Your task to perform on an android device: turn off javascript in the chrome app Image 0: 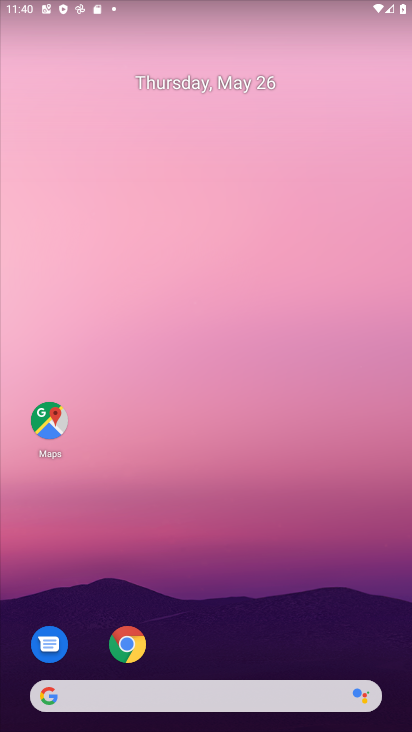
Step 0: drag from (332, 627) to (306, 54)
Your task to perform on an android device: turn off javascript in the chrome app Image 1: 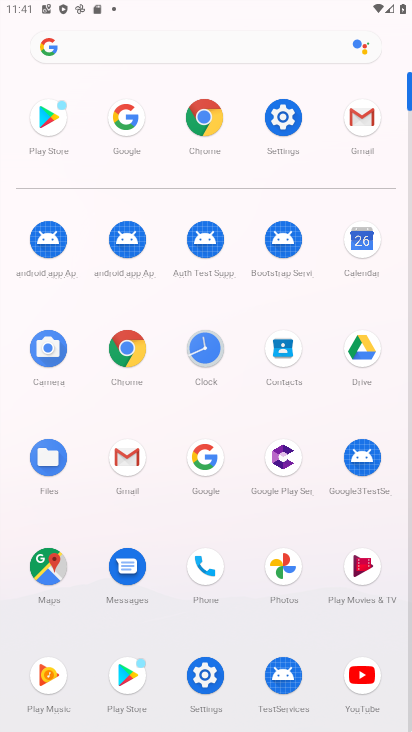
Step 1: click (141, 358)
Your task to perform on an android device: turn off javascript in the chrome app Image 2: 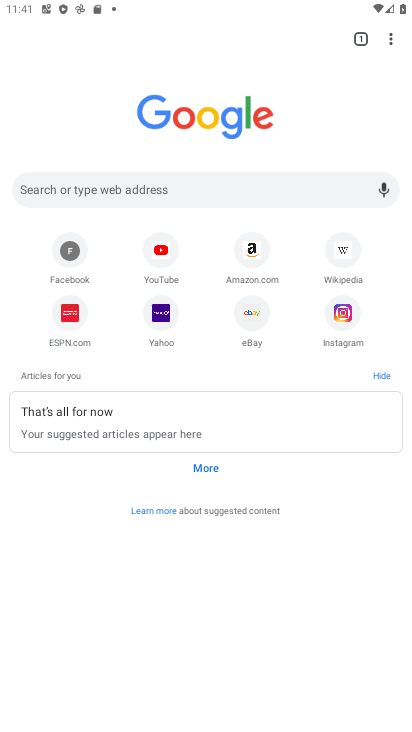
Step 2: click (391, 42)
Your task to perform on an android device: turn off javascript in the chrome app Image 3: 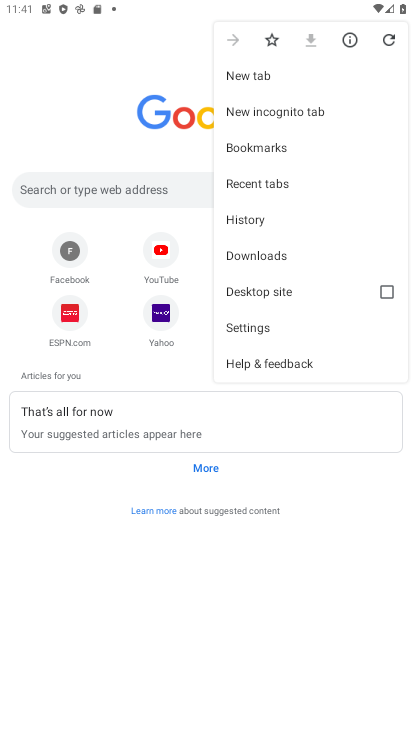
Step 3: click (256, 329)
Your task to perform on an android device: turn off javascript in the chrome app Image 4: 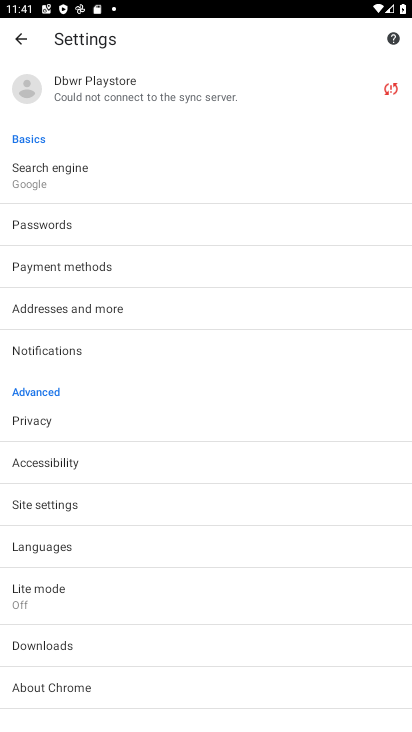
Step 4: click (68, 510)
Your task to perform on an android device: turn off javascript in the chrome app Image 5: 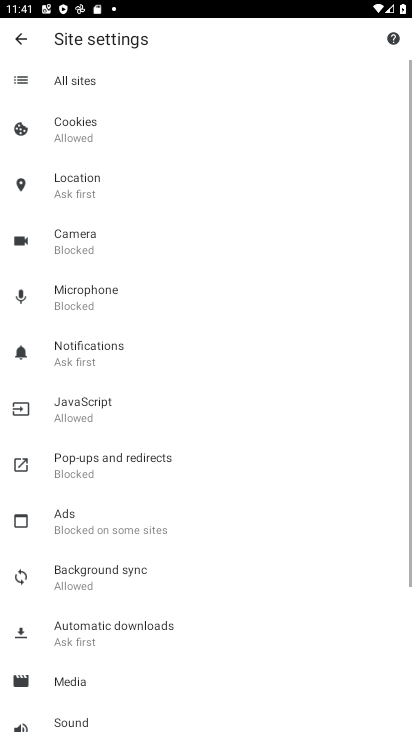
Step 5: click (162, 411)
Your task to perform on an android device: turn off javascript in the chrome app Image 6: 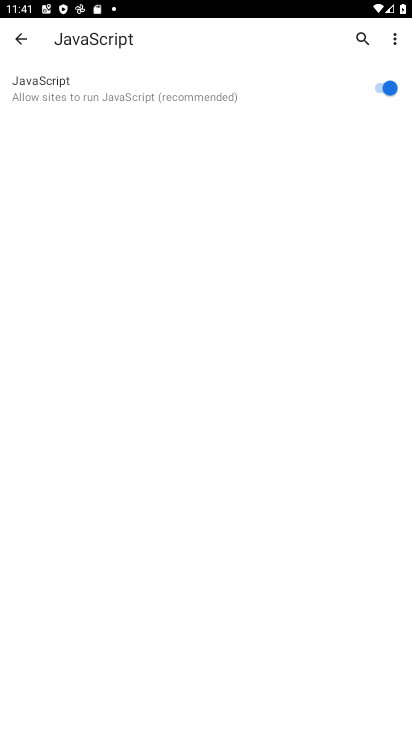
Step 6: click (380, 89)
Your task to perform on an android device: turn off javascript in the chrome app Image 7: 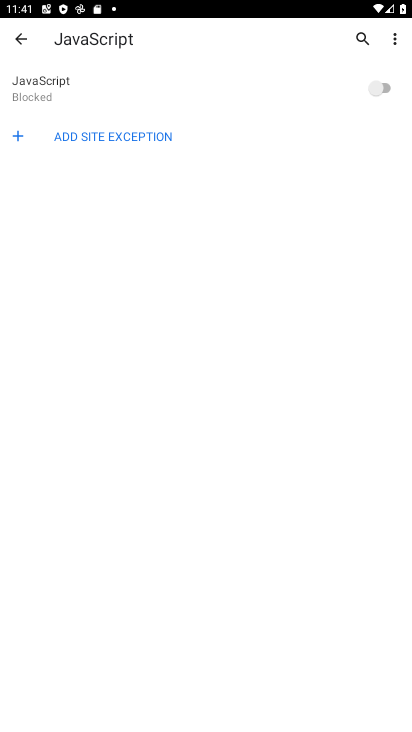
Step 7: task complete